Your task to perform on an android device: install app "Google Find My Device" Image 0: 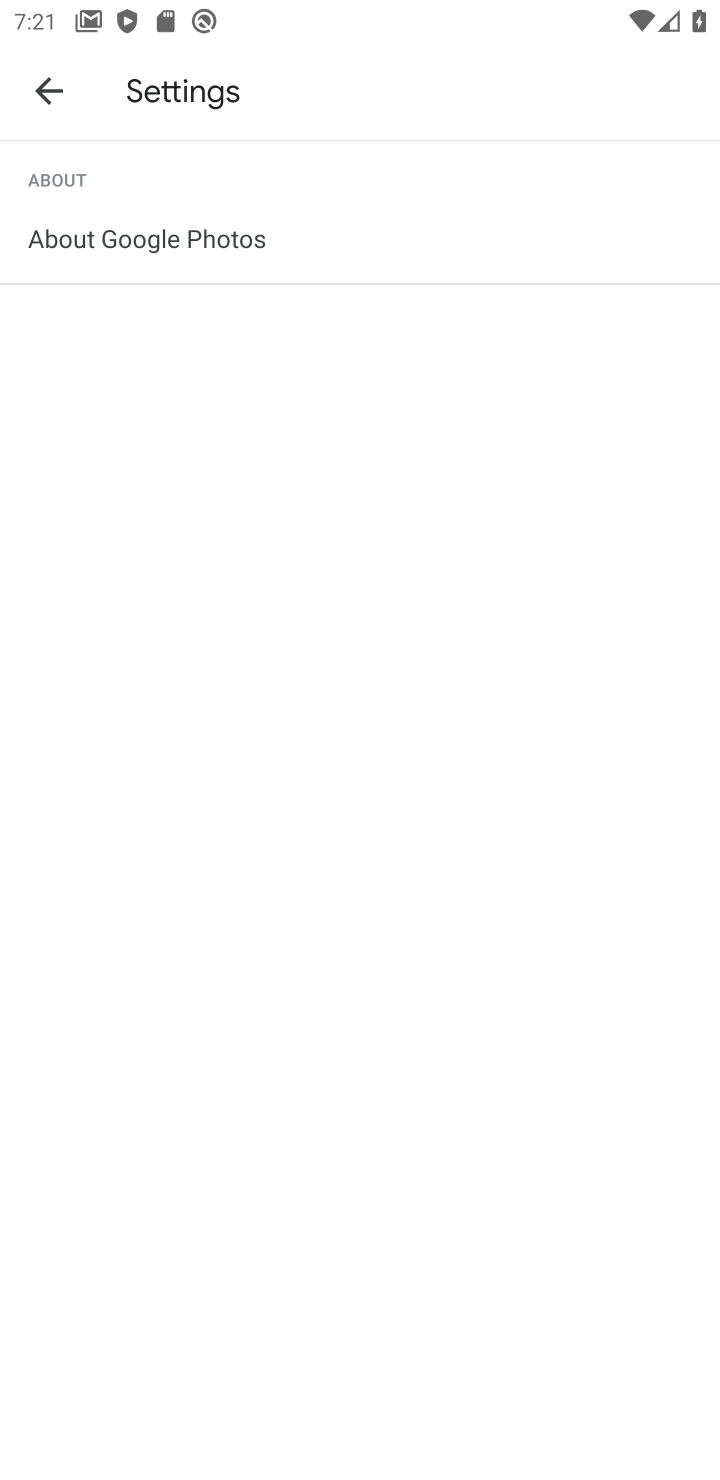
Step 0: press home button
Your task to perform on an android device: install app "Google Find My Device" Image 1: 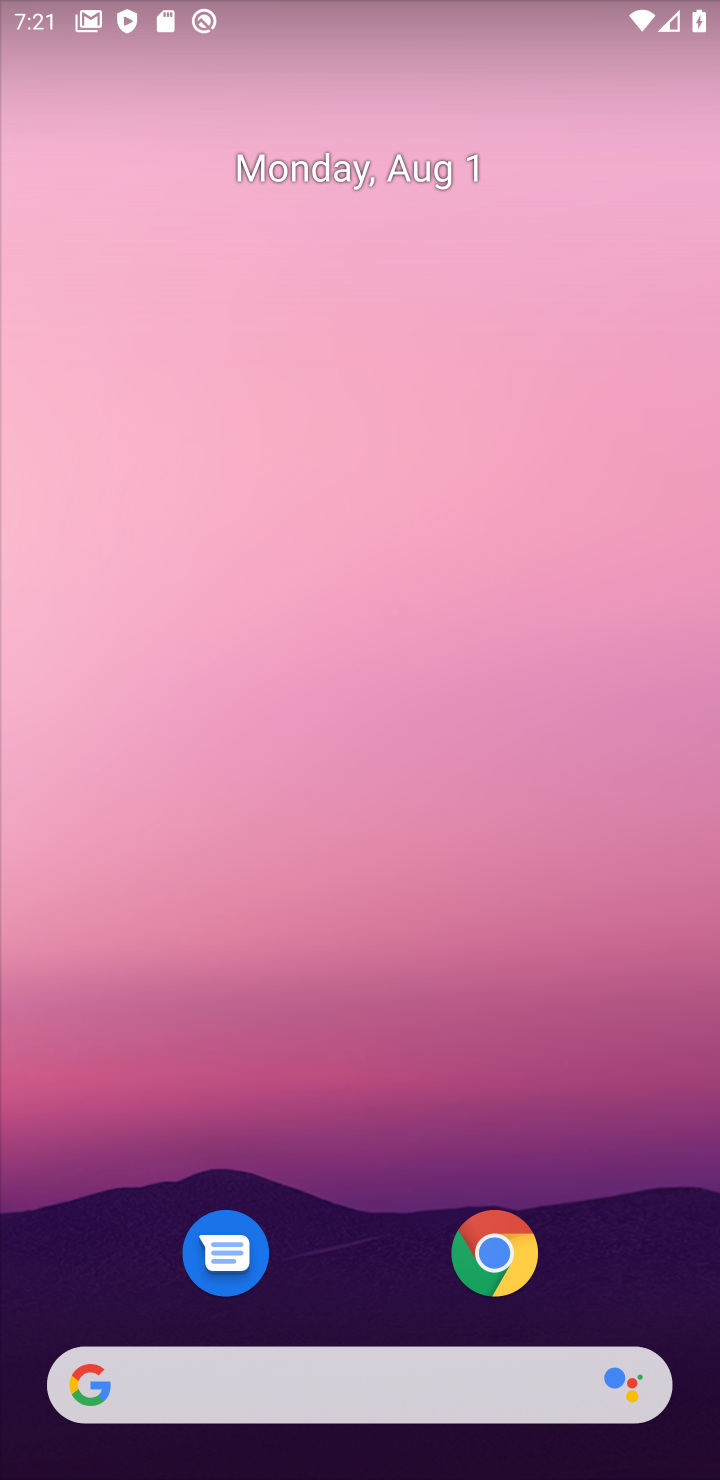
Step 1: drag from (293, 1471) to (532, 346)
Your task to perform on an android device: install app "Google Find My Device" Image 2: 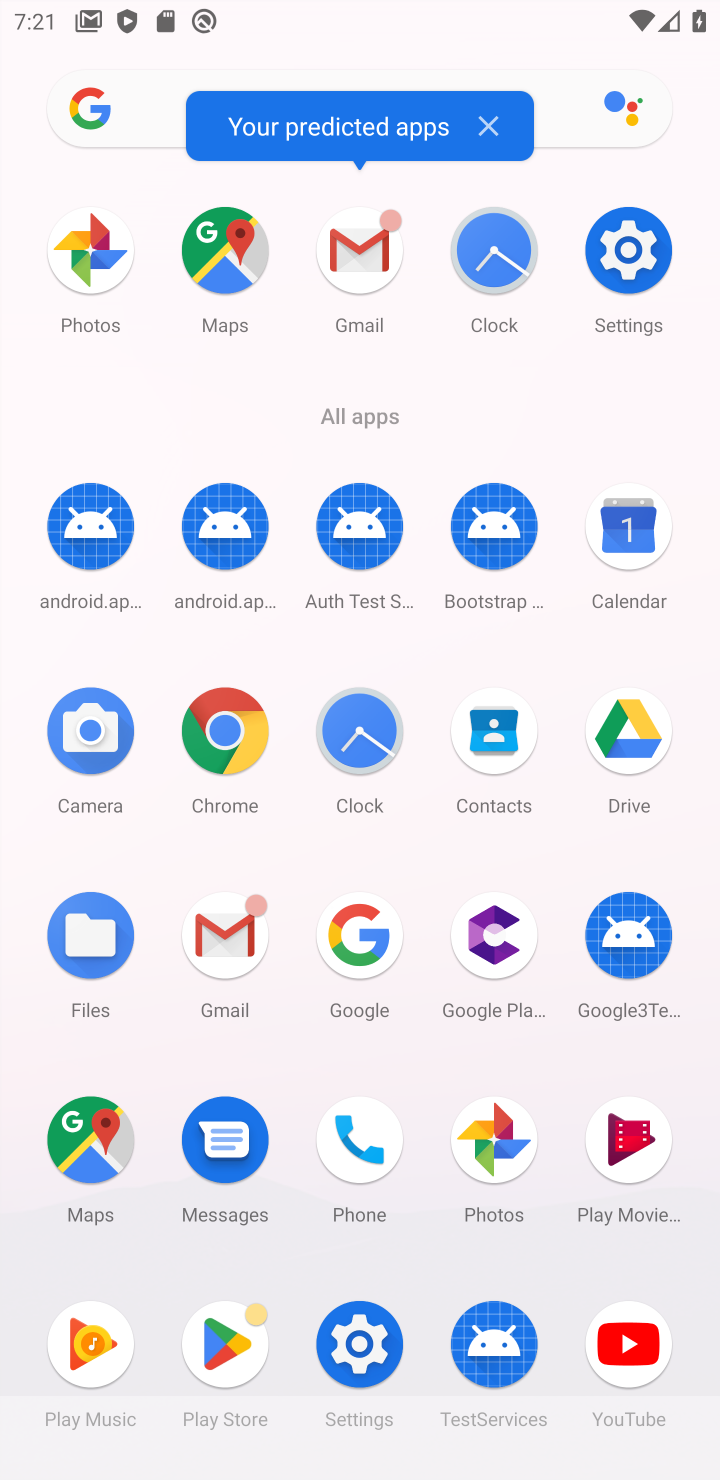
Step 2: click (225, 1323)
Your task to perform on an android device: install app "Google Find My Device" Image 3: 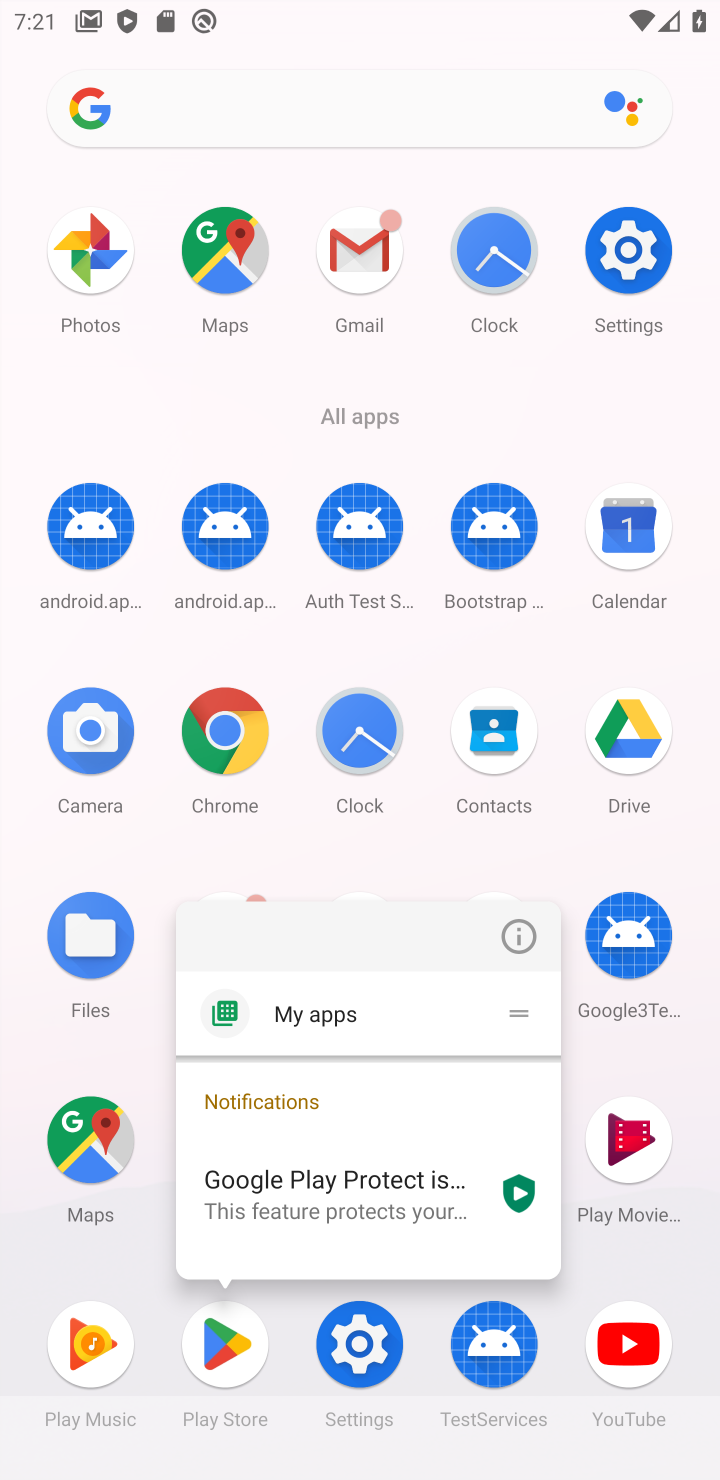
Step 3: click (225, 1323)
Your task to perform on an android device: install app "Google Find My Device" Image 4: 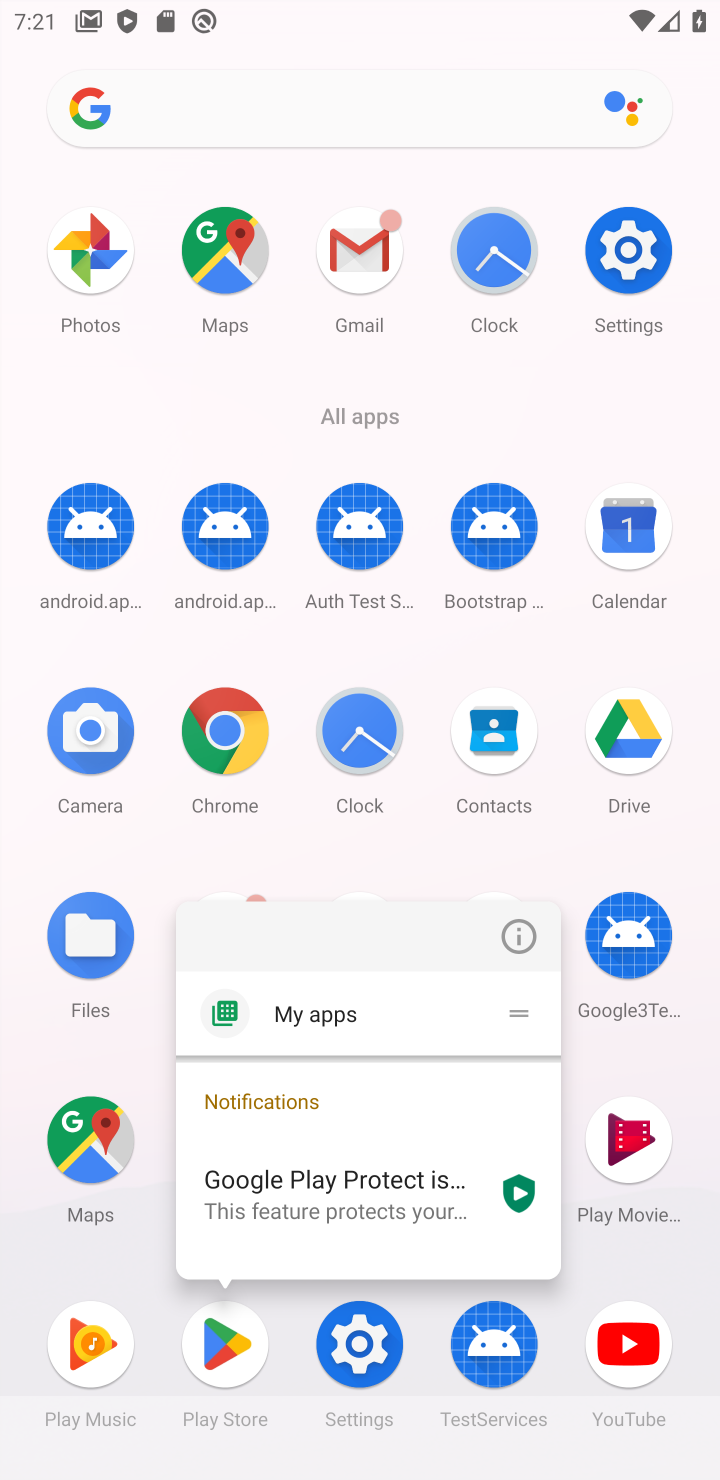
Step 4: click (225, 1323)
Your task to perform on an android device: install app "Google Find My Device" Image 5: 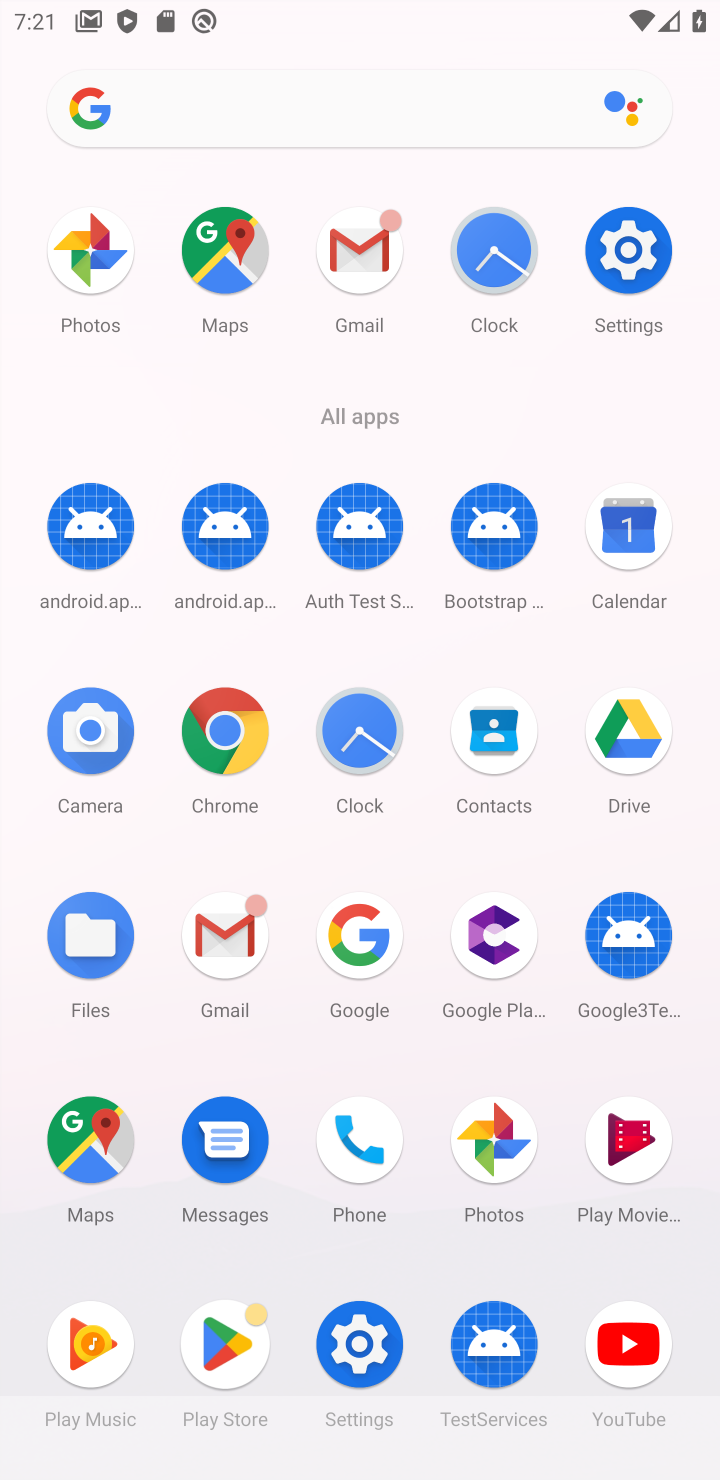
Step 5: click (225, 1323)
Your task to perform on an android device: install app "Google Find My Device" Image 6: 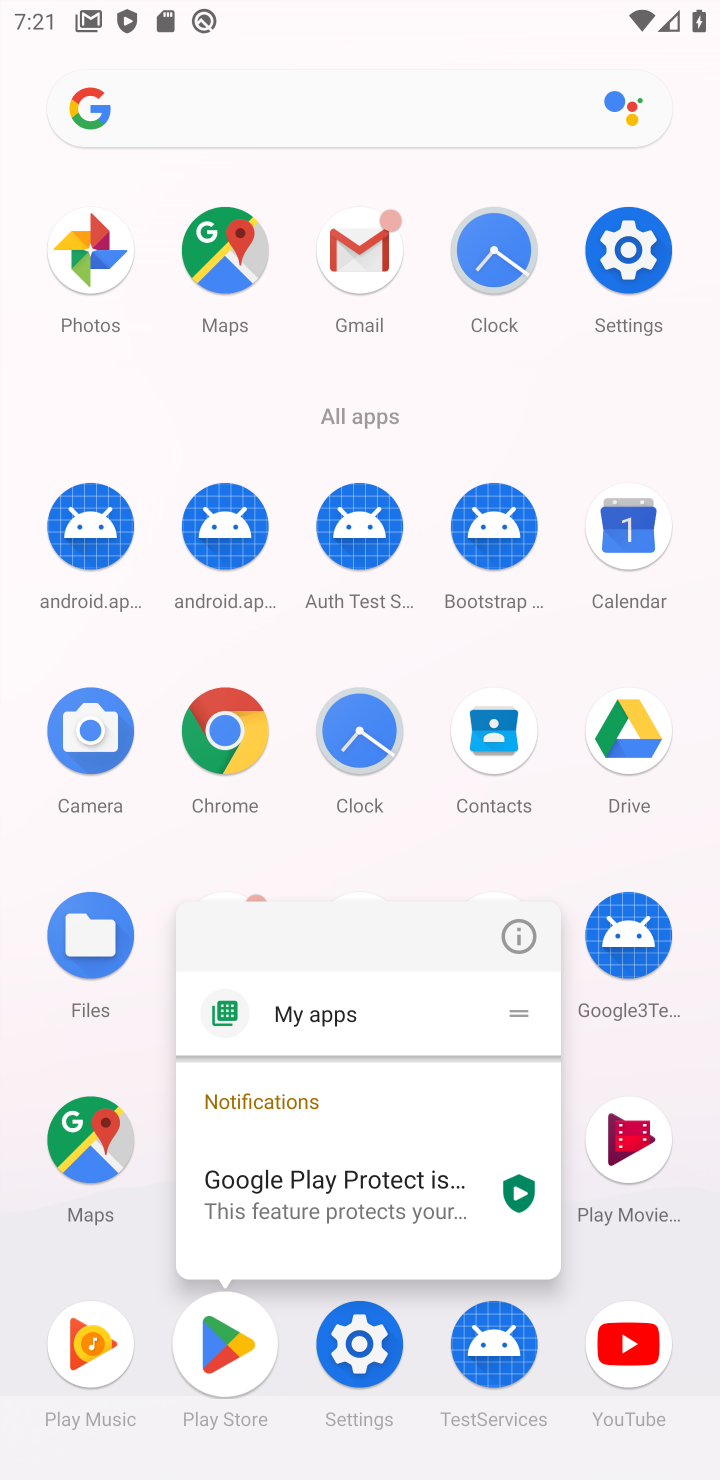
Step 6: click (225, 1323)
Your task to perform on an android device: install app "Google Find My Device" Image 7: 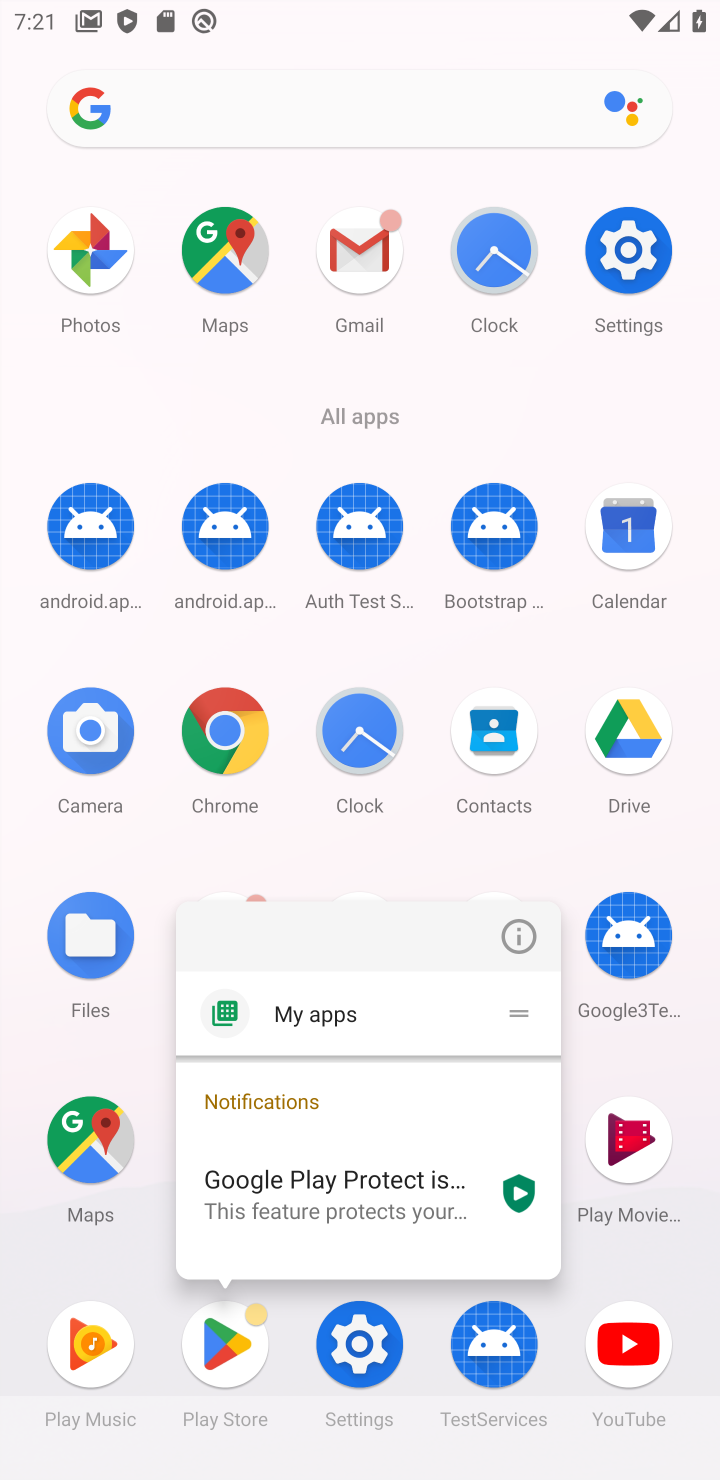
Step 7: click (225, 1332)
Your task to perform on an android device: install app "Google Find My Device" Image 8: 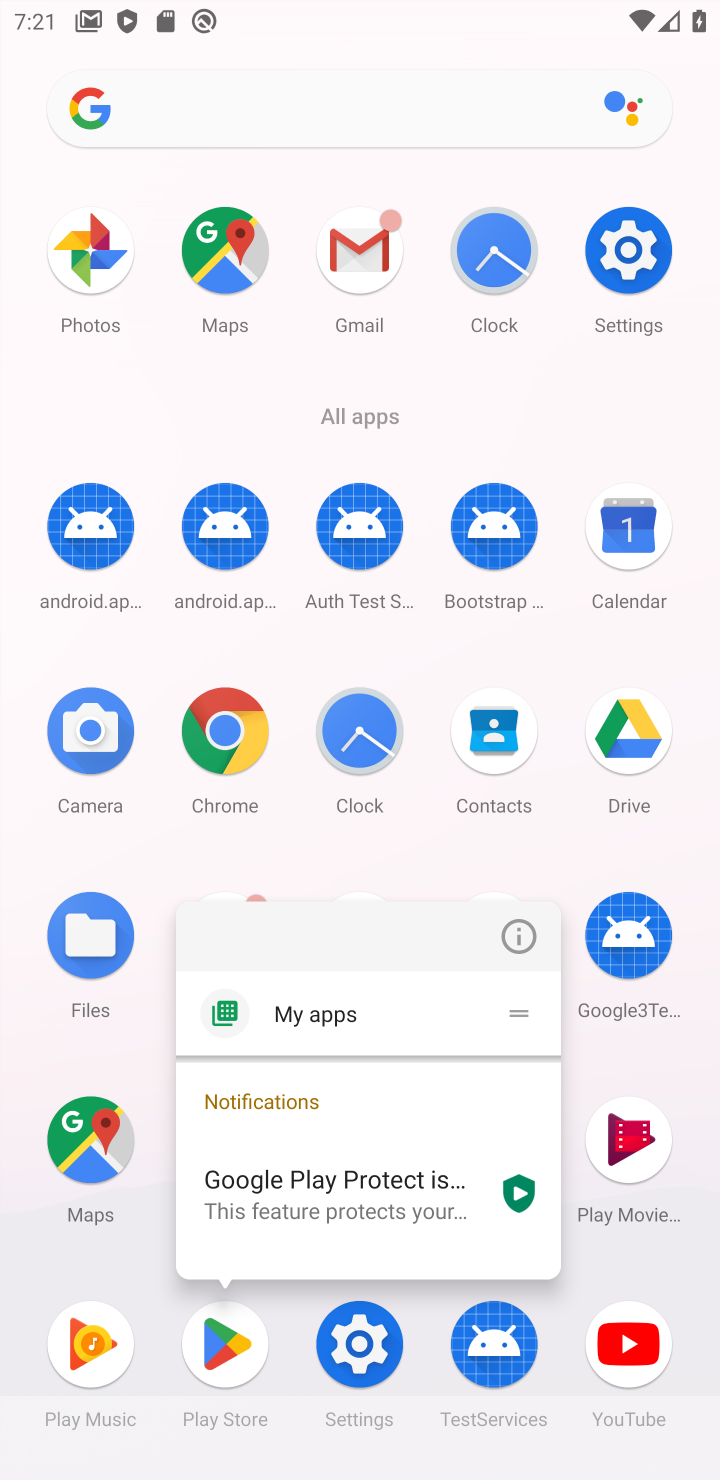
Step 8: click (225, 1332)
Your task to perform on an android device: install app "Google Find My Device" Image 9: 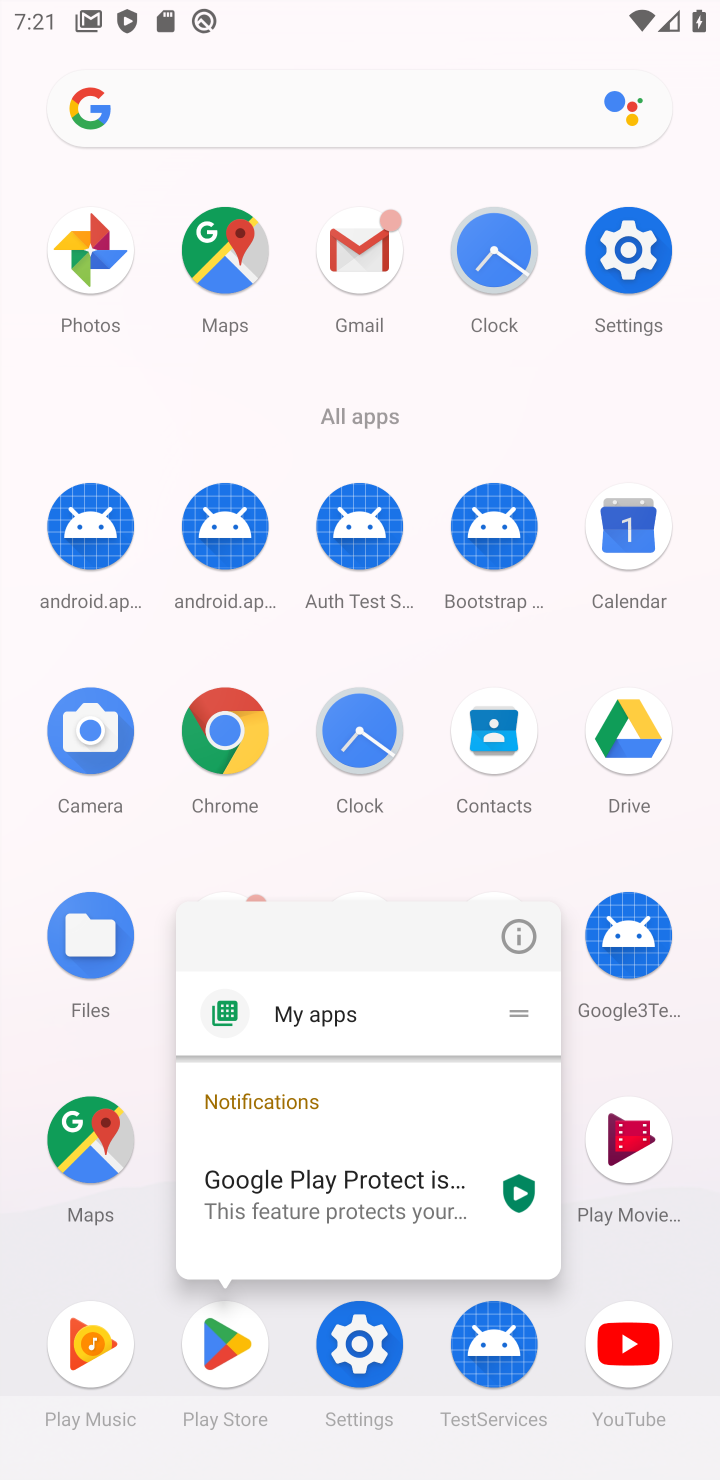
Step 9: click (225, 1350)
Your task to perform on an android device: install app "Google Find My Device" Image 10: 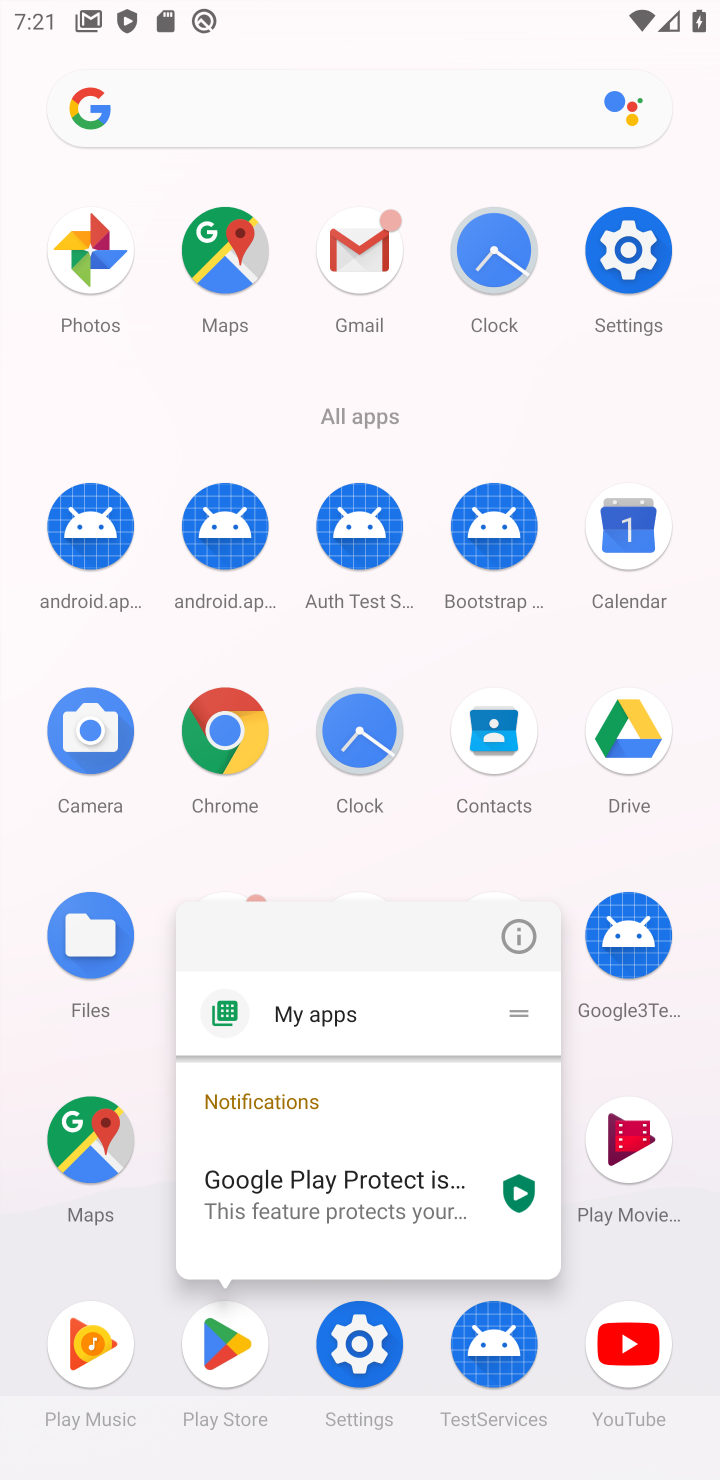
Step 10: click (219, 1345)
Your task to perform on an android device: install app "Google Find My Device" Image 11: 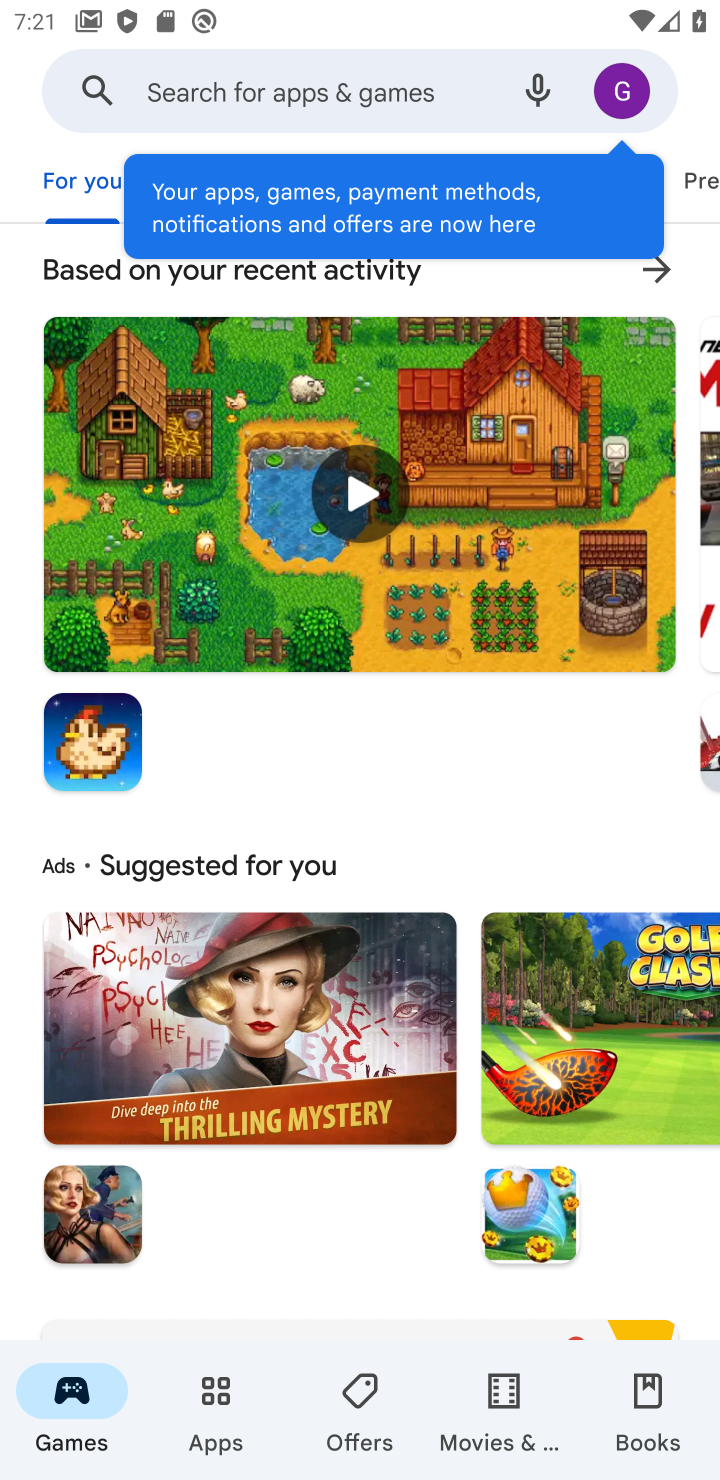
Step 11: click (213, 96)
Your task to perform on an android device: install app "Google Find My Device" Image 12: 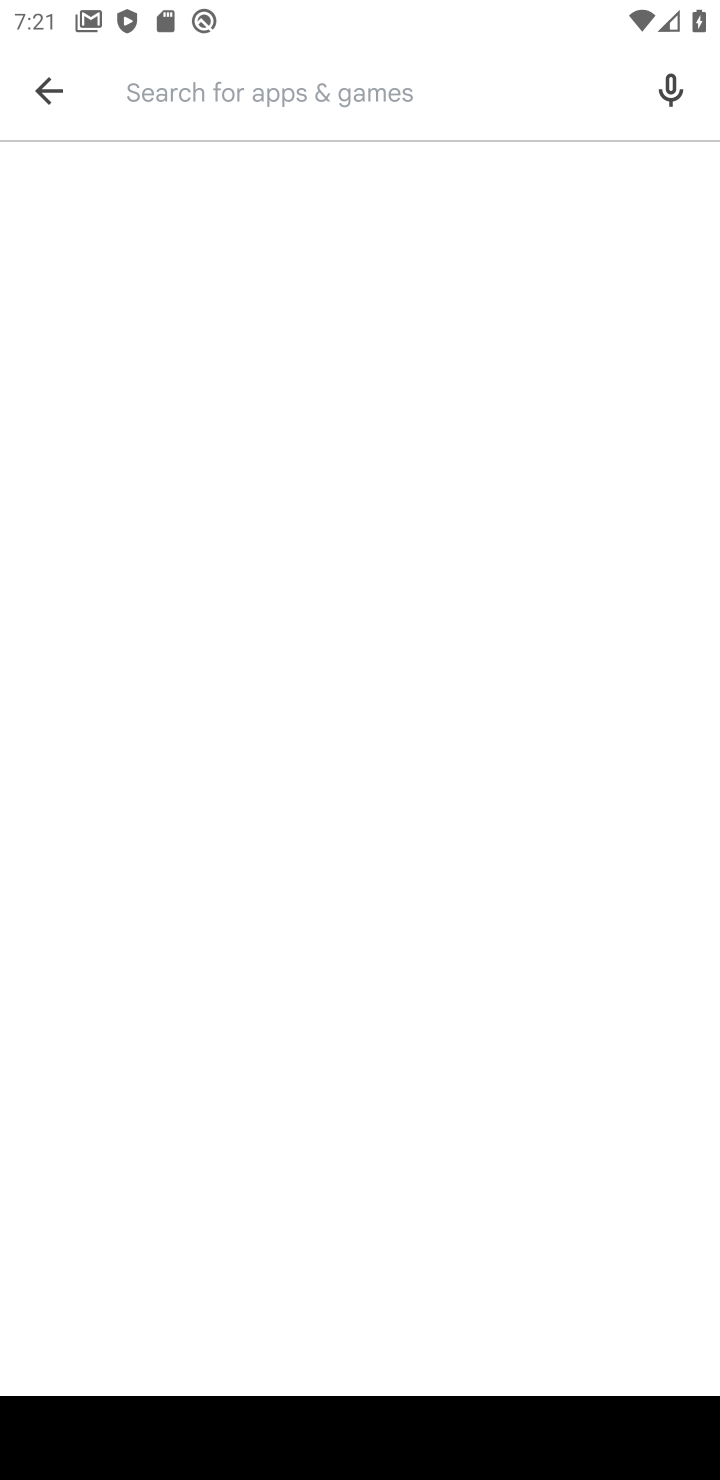
Step 12: type "google Find My Device"
Your task to perform on an android device: install app "Google Find My Device" Image 13: 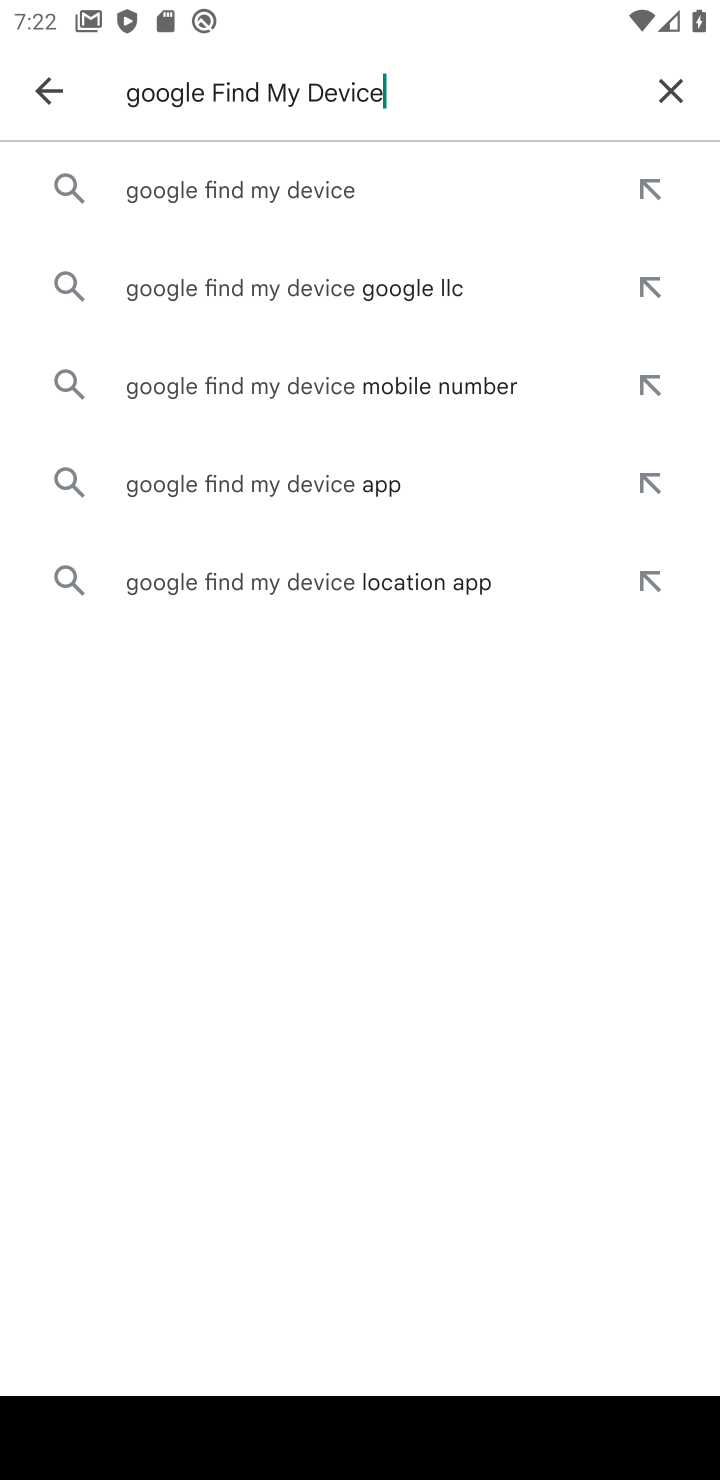
Step 13: click (421, 199)
Your task to perform on an android device: install app "Google Find My Device" Image 14: 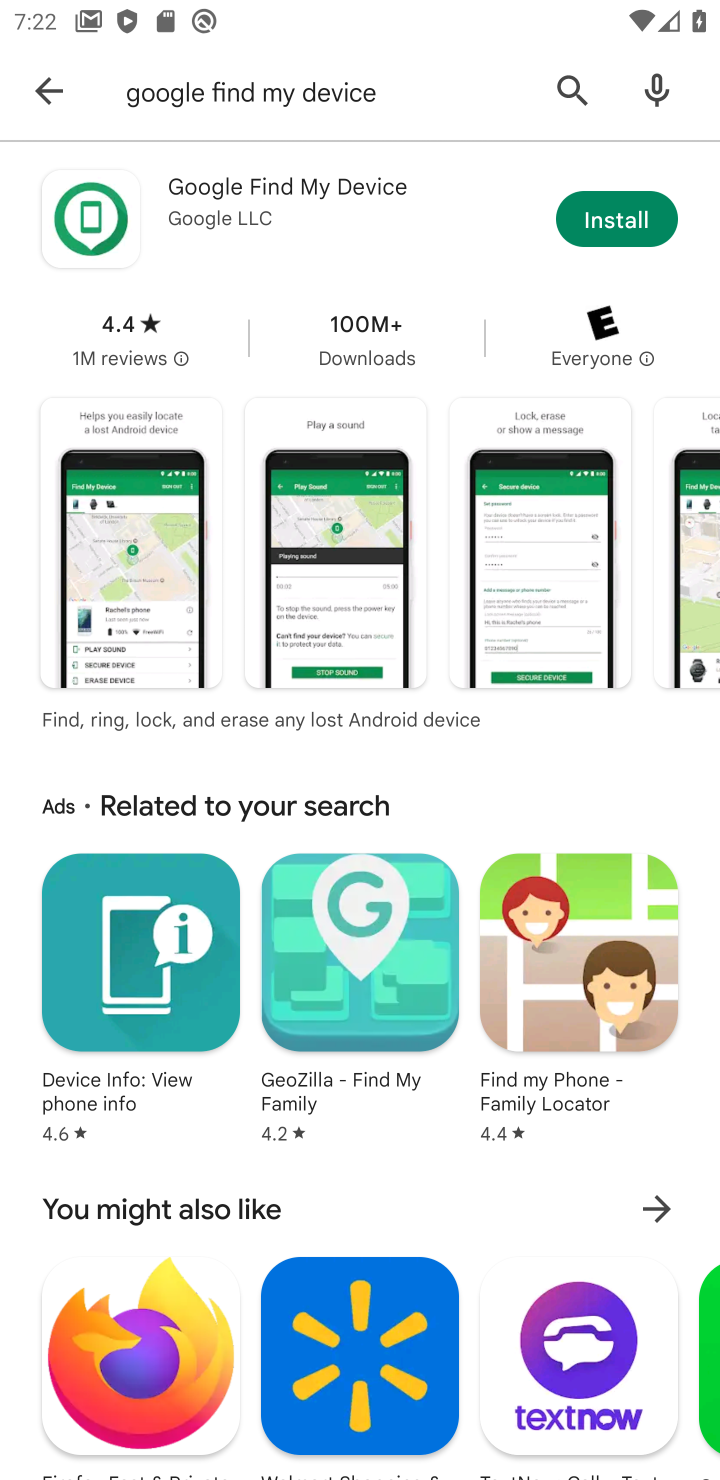
Step 14: click (657, 221)
Your task to perform on an android device: install app "Google Find My Device" Image 15: 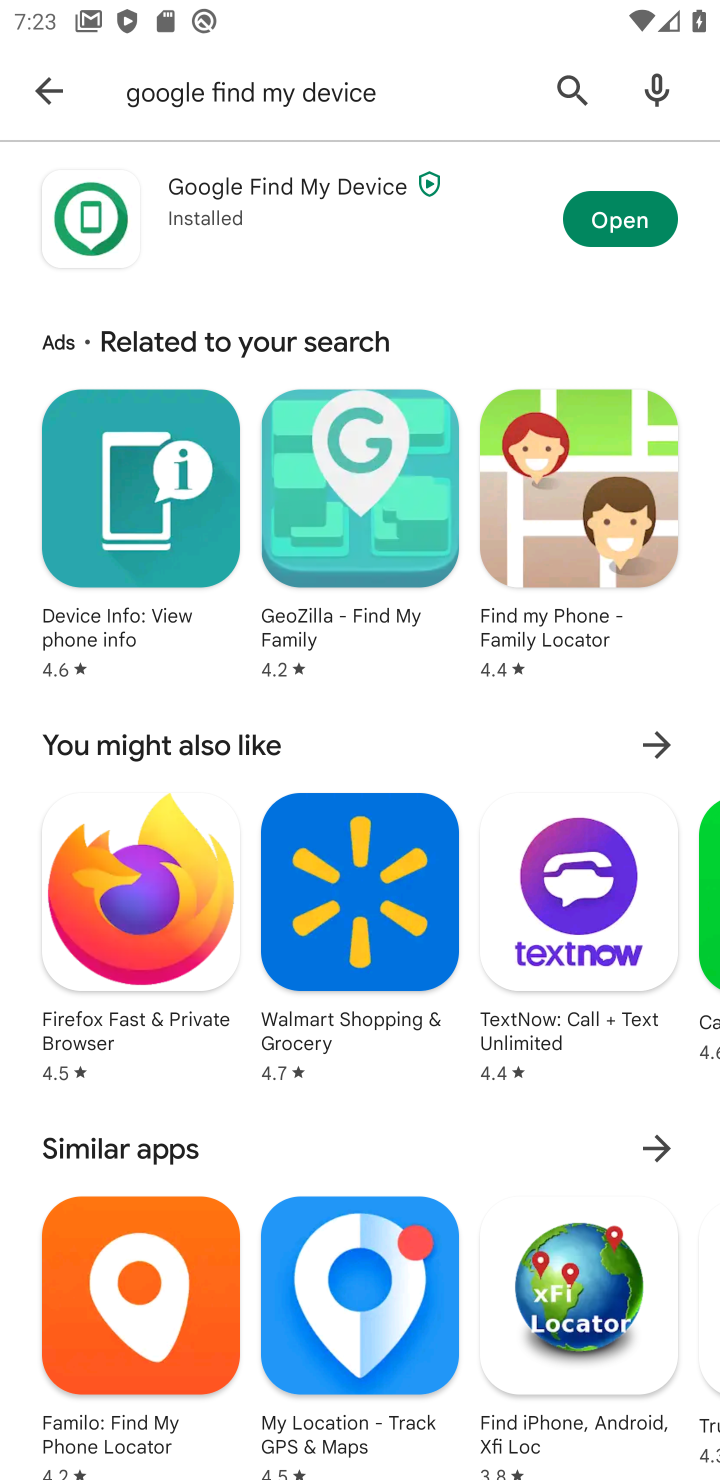
Step 15: task complete